Your task to perform on an android device: Open eBay Image 0: 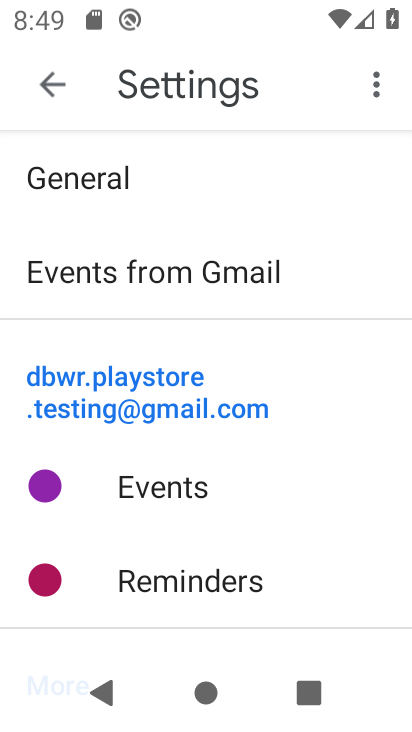
Step 0: press home button
Your task to perform on an android device: Open eBay Image 1: 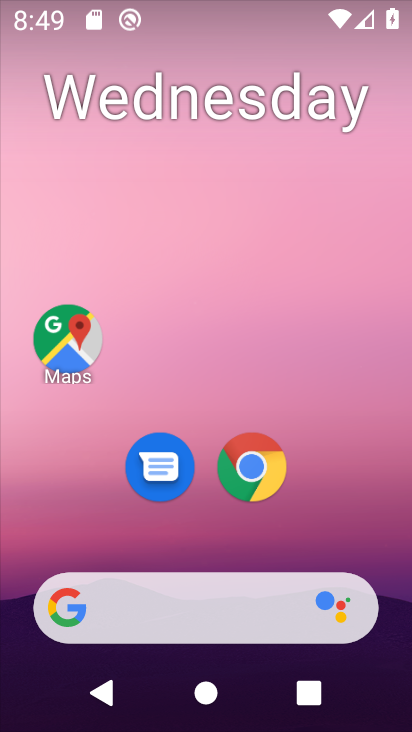
Step 1: drag from (323, 463) to (304, 68)
Your task to perform on an android device: Open eBay Image 2: 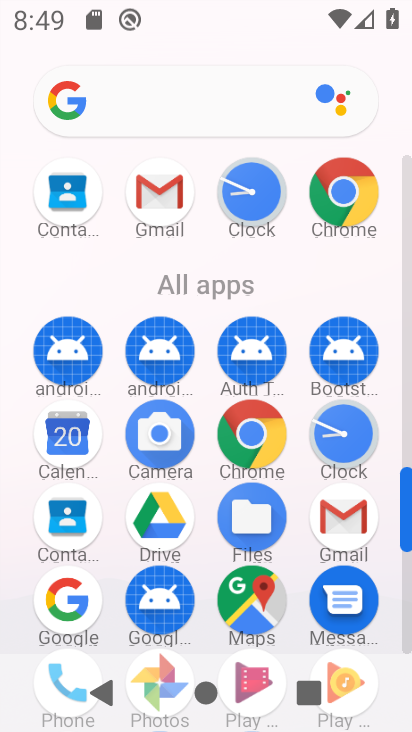
Step 2: click (344, 177)
Your task to perform on an android device: Open eBay Image 3: 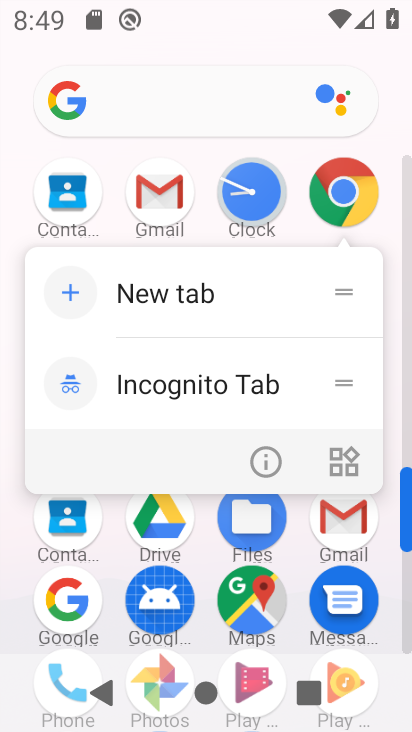
Step 3: click (344, 176)
Your task to perform on an android device: Open eBay Image 4: 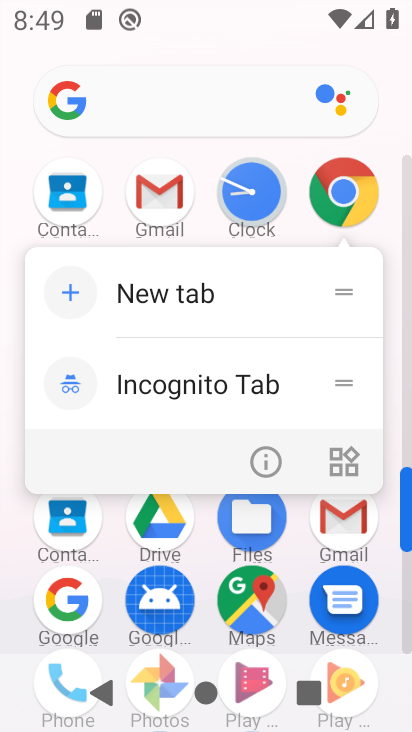
Step 4: click (348, 194)
Your task to perform on an android device: Open eBay Image 5: 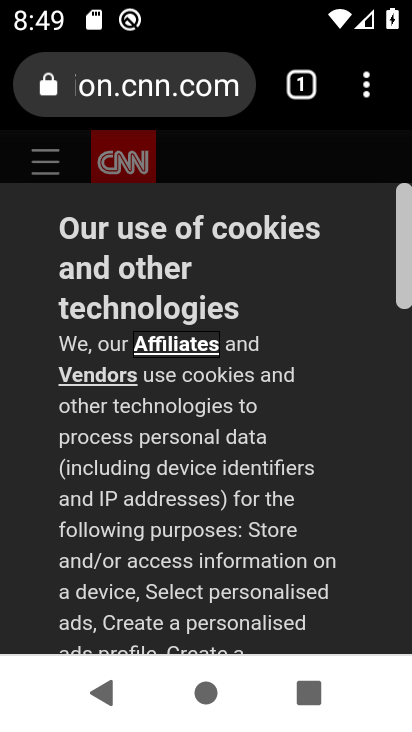
Step 5: click (197, 79)
Your task to perform on an android device: Open eBay Image 6: 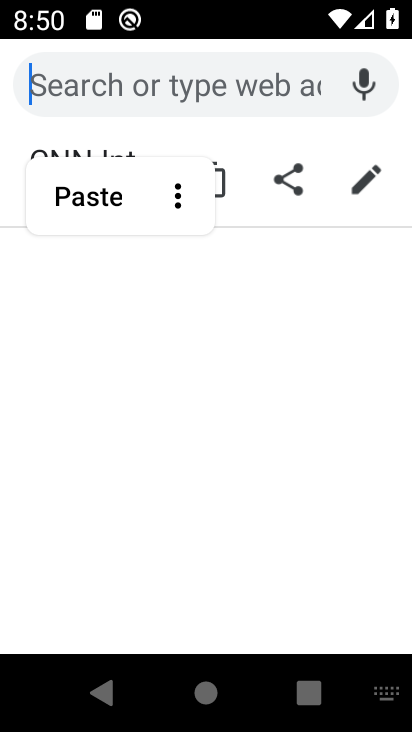
Step 6: type "ebay"
Your task to perform on an android device: Open eBay Image 7: 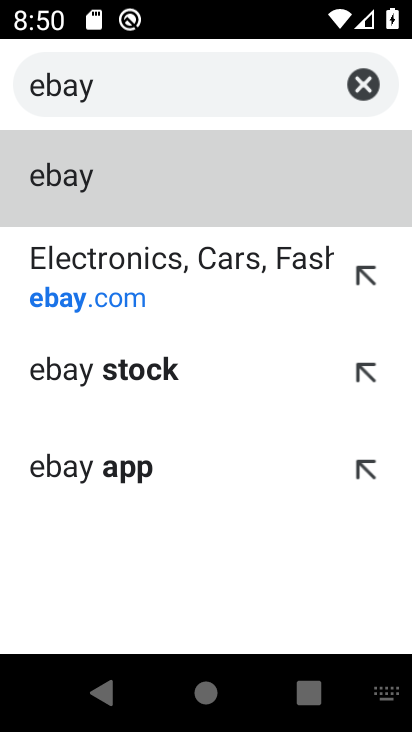
Step 7: click (55, 205)
Your task to perform on an android device: Open eBay Image 8: 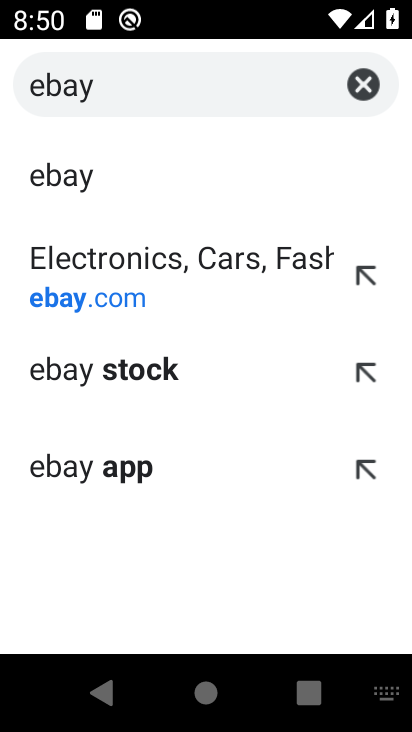
Step 8: click (63, 178)
Your task to perform on an android device: Open eBay Image 9: 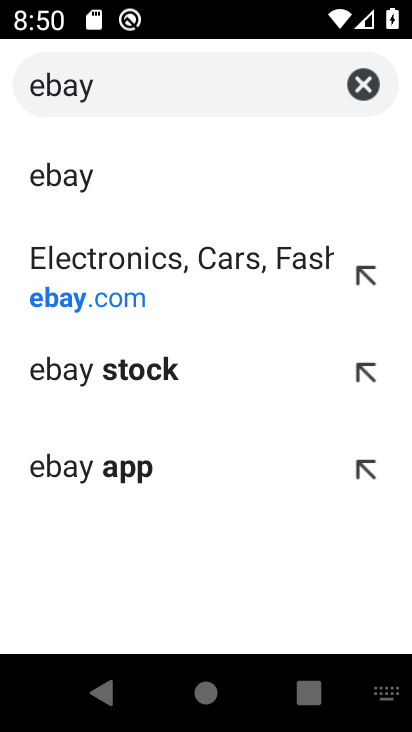
Step 9: click (63, 176)
Your task to perform on an android device: Open eBay Image 10: 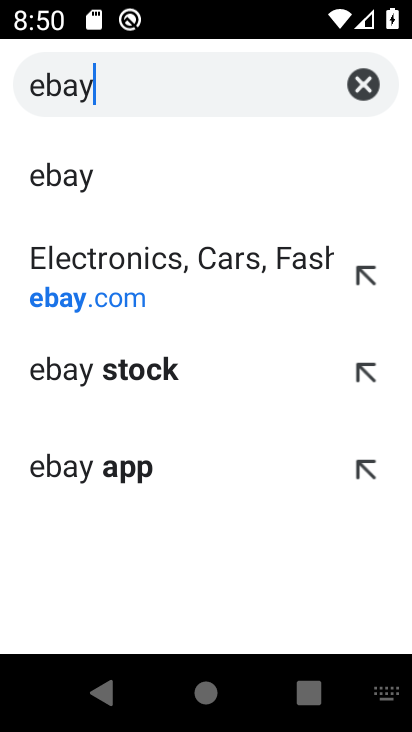
Step 10: click (56, 188)
Your task to perform on an android device: Open eBay Image 11: 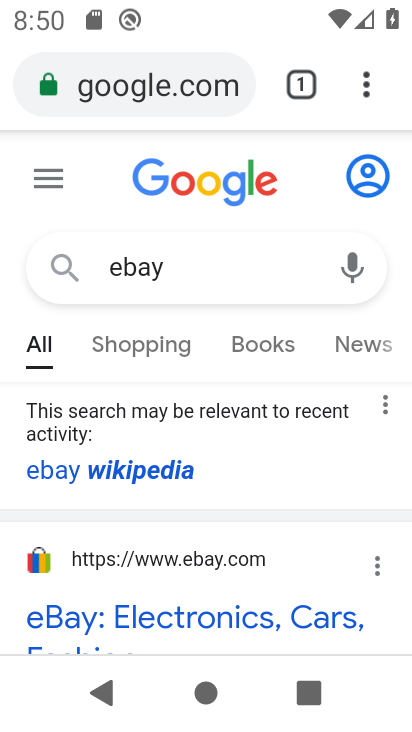
Step 11: drag from (197, 600) to (190, 361)
Your task to perform on an android device: Open eBay Image 12: 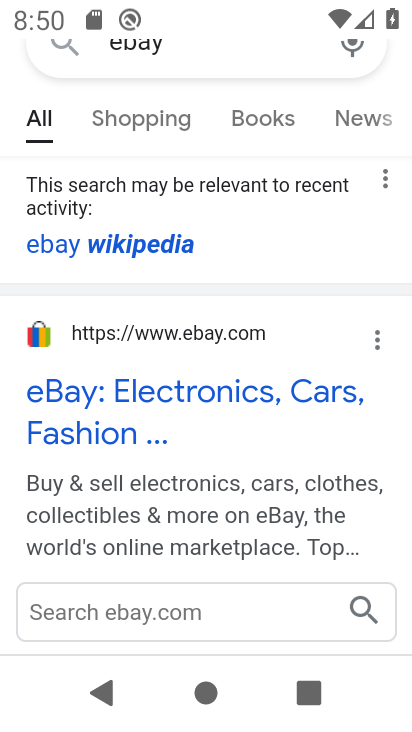
Step 12: click (165, 387)
Your task to perform on an android device: Open eBay Image 13: 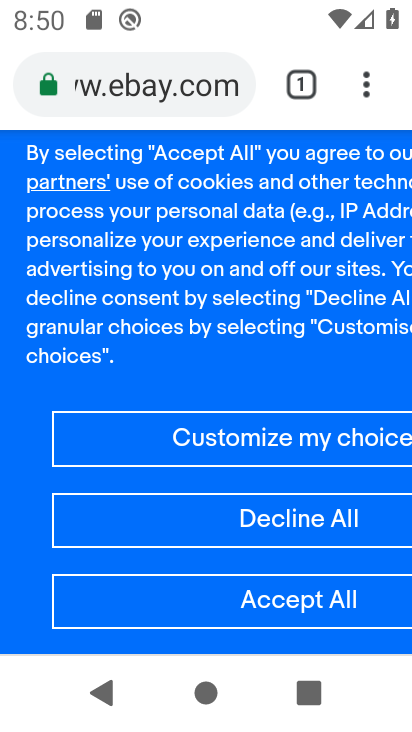
Step 13: task complete